Your task to perform on an android device: Go to ESPN.com Image 0: 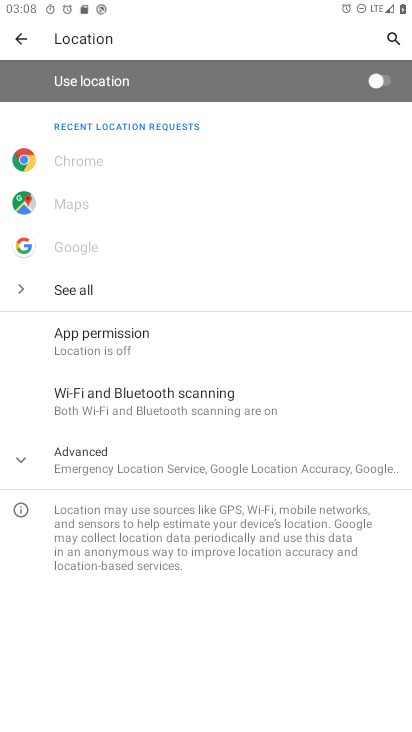
Step 0: press home button
Your task to perform on an android device: Go to ESPN.com Image 1: 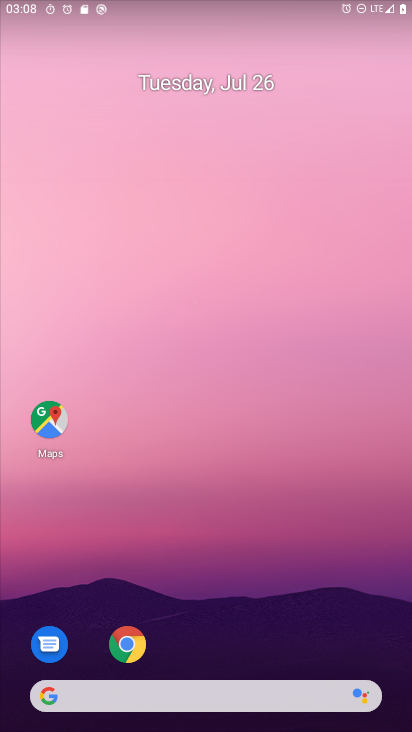
Step 1: click (133, 657)
Your task to perform on an android device: Go to ESPN.com Image 2: 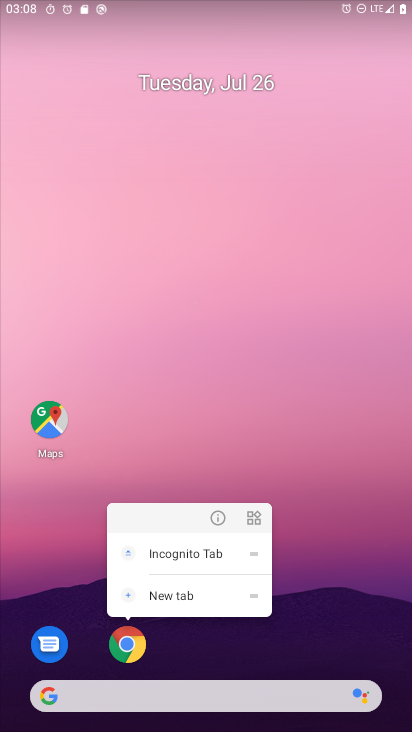
Step 2: click (133, 657)
Your task to perform on an android device: Go to ESPN.com Image 3: 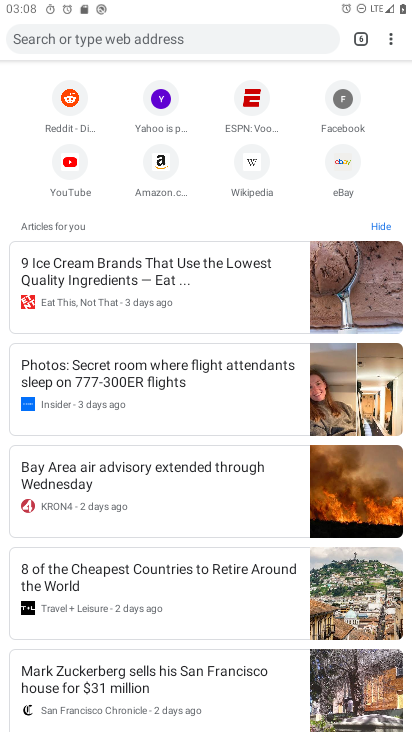
Step 3: click (251, 107)
Your task to perform on an android device: Go to ESPN.com Image 4: 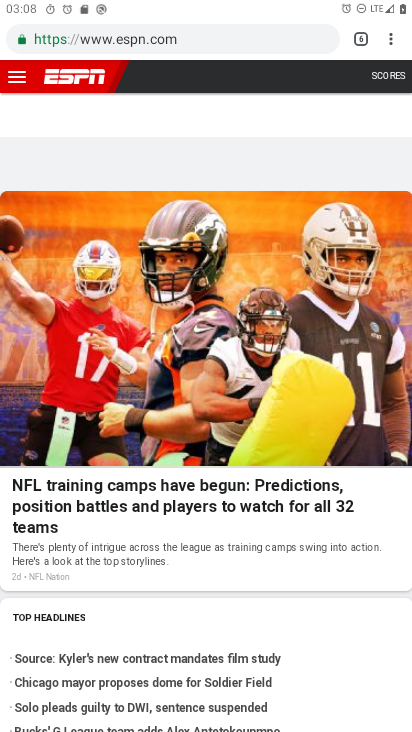
Step 4: task complete